Your task to perform on an android device: toggle notifications settings in the gmail app Image 0: 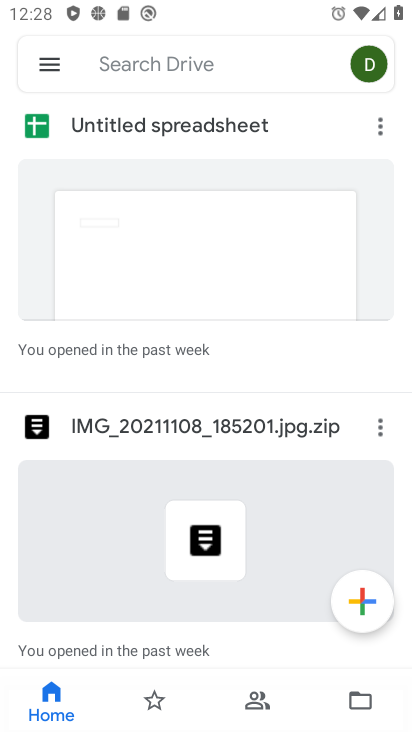
Step 0: press home button
Your task to perform on an android device: toggle notifications settings in the gmail app Image 1: 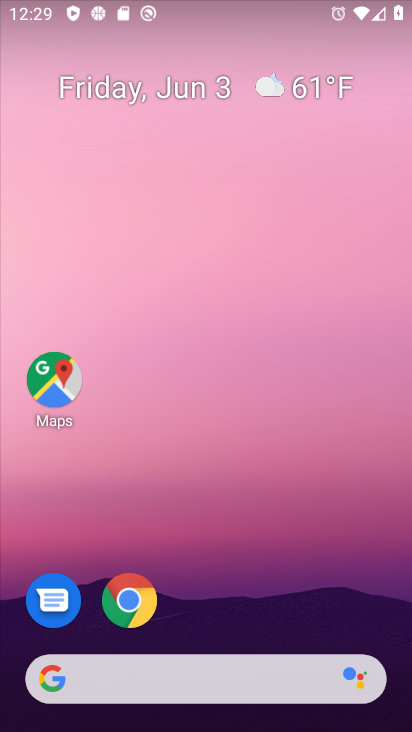
Step 1: drag from (258, 550) to (277, 105)
Your task to perform on an android device: toggle notifications settings in the gmail app Image 2: 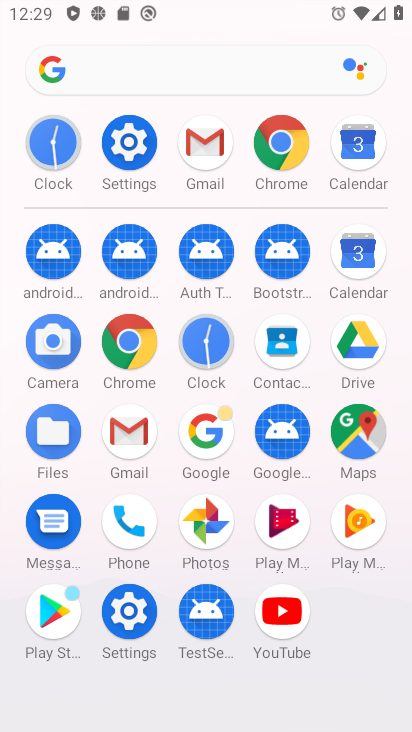
Step 2: click (192, 151)
Your task to perform on an android device: toggle notifications settings in the gmail app Image 3: 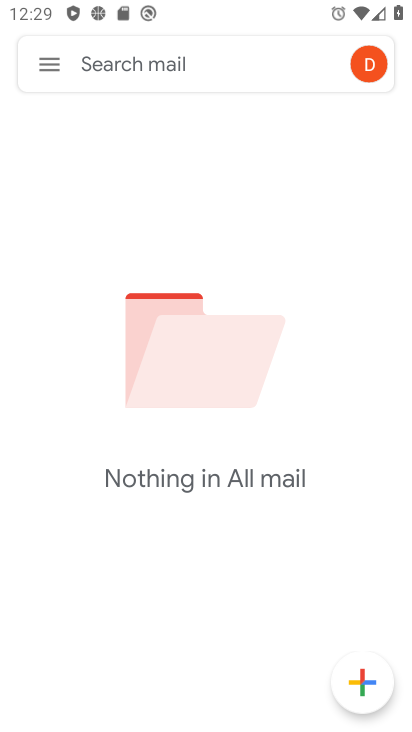
Step 3: click (53, 71)
Your task to perform on an android device: toggle notifications settings in the gmail app Image 4: 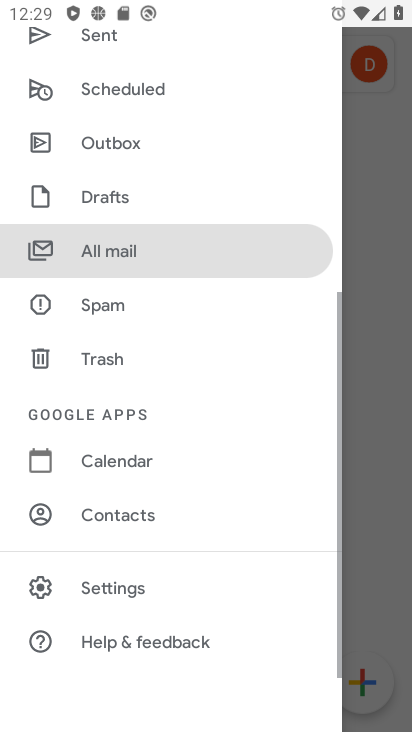
Step 4: drag from (175, 600) to (252, 303)
Your task to perform on an android device: toggle notifications settings in the gmail app Image 5: 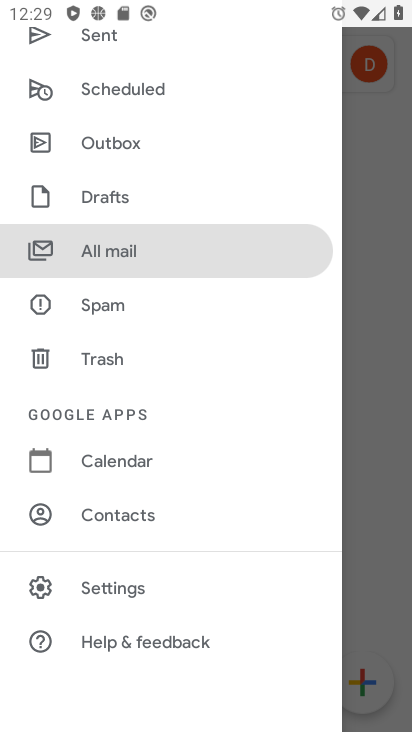
Step 5: click (135, 579)
Your task to perform on an android device: toggle notifications settings in the gmail app Image 6: 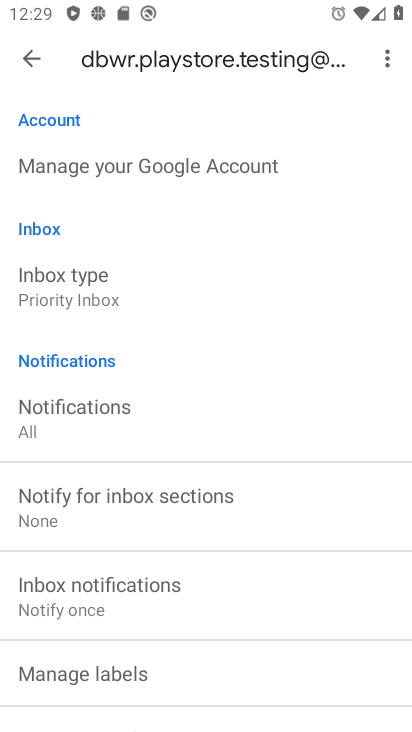
Step 6: drag from (259, 622) to (312, 314)
Your task to perform on an android device: toggle notifications settings in the gmail app Image 7: 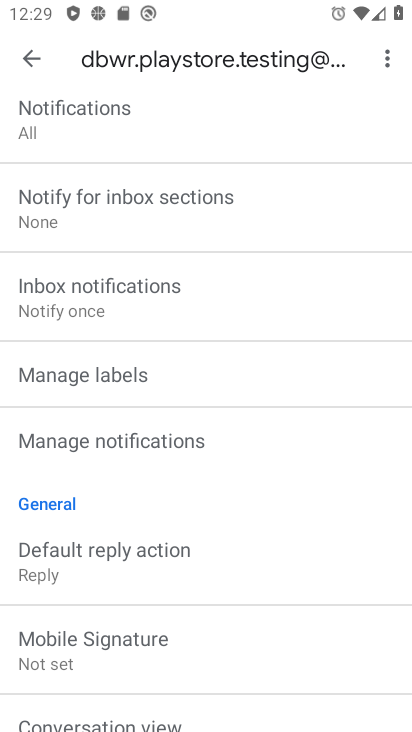
Step 7: drag from (199, 570) to (235, 418)
Your task to perform on an android device: toggle notifications settings in the gmail app Image 8: 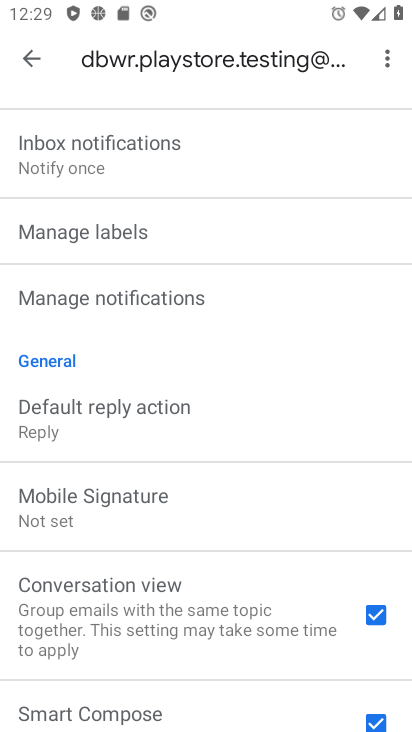
Step 8: click (177, 315)
Your task to perform on an android device: toggle notifications settings in the gmail app Image 9: 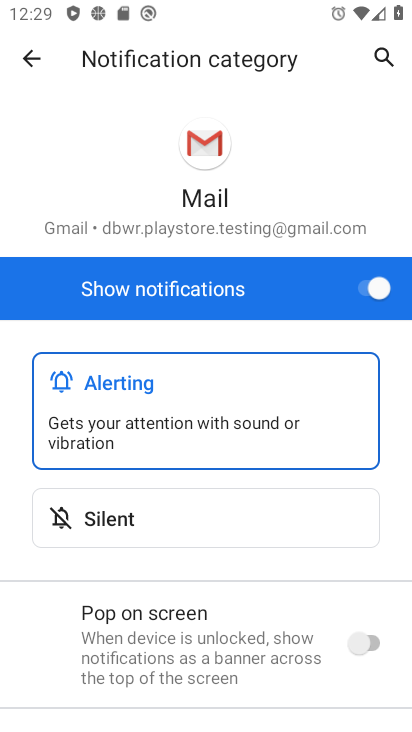
Step 9: click (378, 295)
Your task to perform on an android device: toggle notifications settings in the gmail app Image 10: 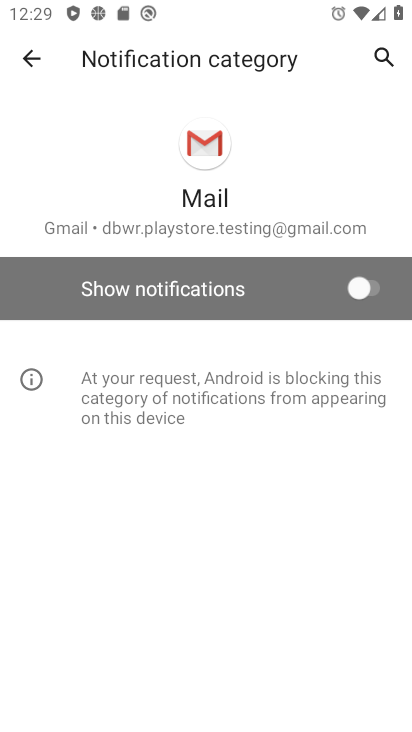
Step 10: task complete